Your task to perform on an android device: Search for seafood restaurants on Google Maps Image 0: 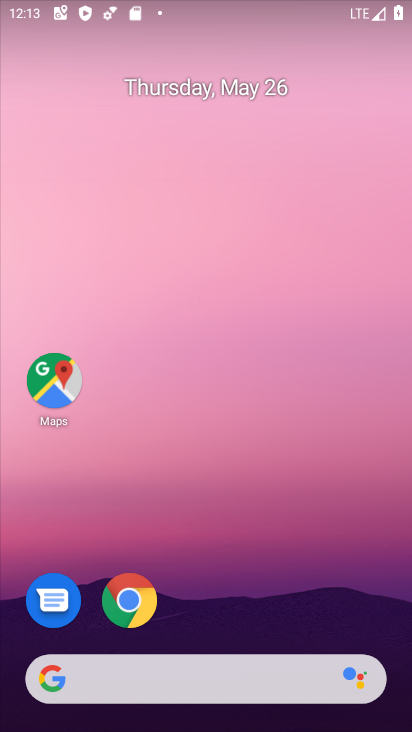
Step 0: drag from (290, 471) to (288, 181)
Your task to perform on an android device: Search for seafood restaurants on Google Maps Image 1: 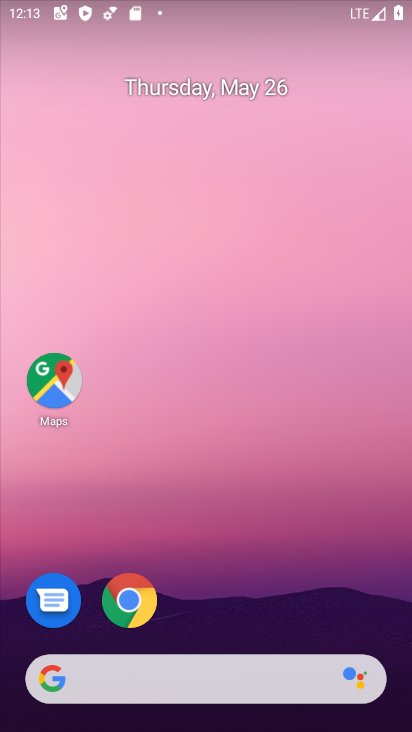
Step 1: drag from (263, 519) to (278, 136)
Your task to perform on an android device: Search for seafood restaurants on Google Maps Image 2: 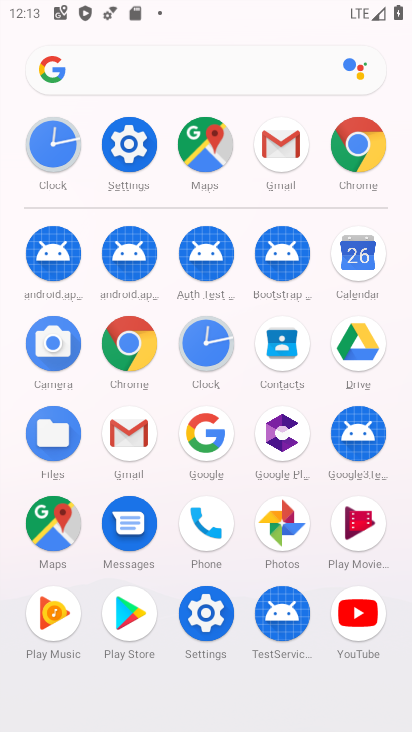
Step 2: click (50, 521)
Your task to perform on an android device: Search for seafood restaurants on Google Maps Image 3: 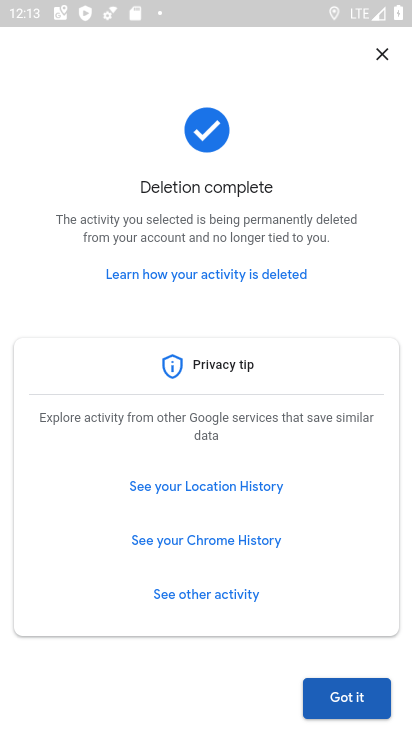
Step 3: click (343, 717)
Your task to perform on an android device: Search for seafood restaurants on Google Maps Image 4: 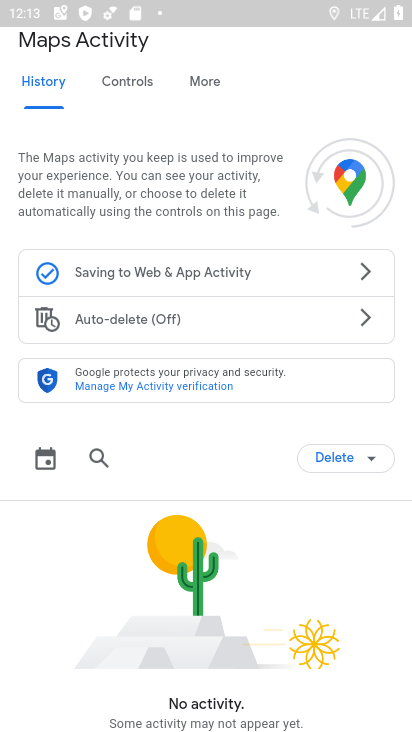
Step 4: press back button
Your task to perform on an android device: Search for seafood restaurants on Google Maps Image 5: 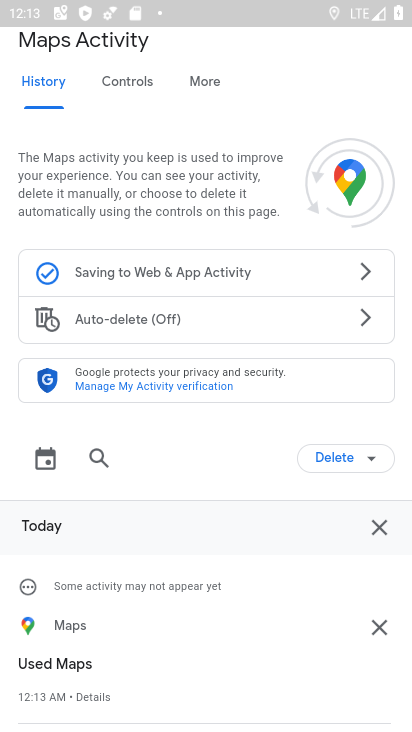
Step 5: press back button
Your task to perform on an android device: Search for seafood restaurants on Google Maps Image 6: 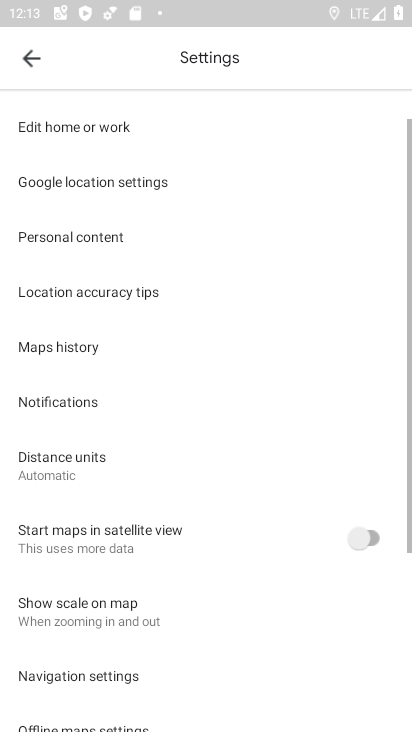
Step 6: press back button
Your task to perform on an android device: Search for seafood restaurants on Google Maps Image 7: 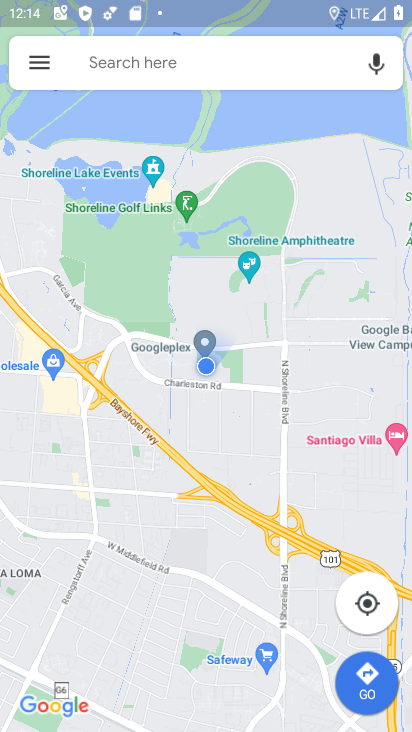
Step 7: click (217, 56)
Your task to perform on an android device: Search for seafood restaurants on Google Maps Image 8: 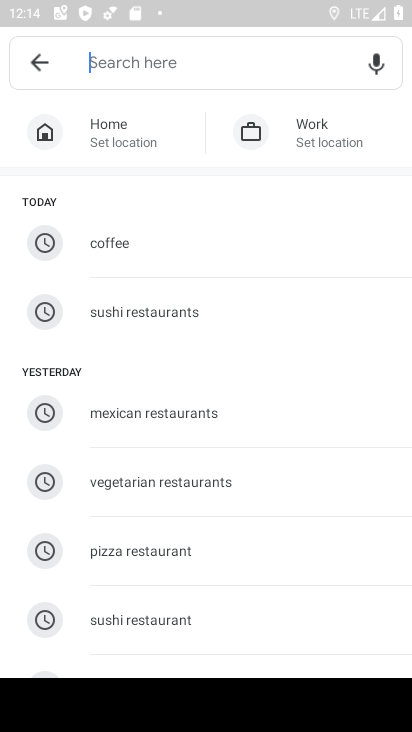
Step 8: type "seafood restaurants"
Your task to perform on an android device: Search for seafood restaurants on Google Maps Image 9: 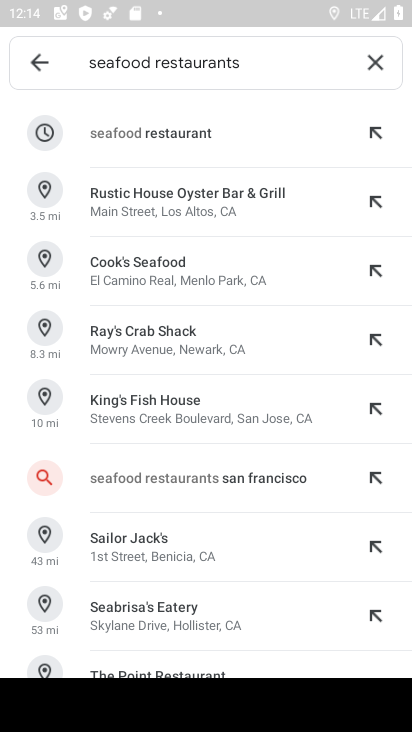
Step 9: press enter
Your task to perform on an android device: Search for seafood restaurants on Google Maps Image 10: 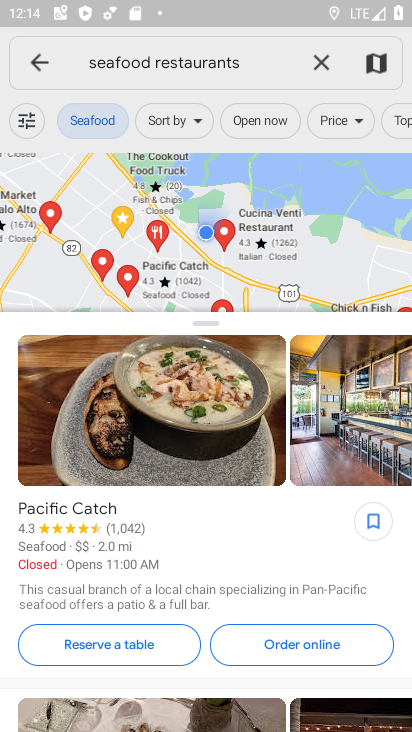
Step 10: task complete